Your task to perform on an android device: turn on wifi Image 0: 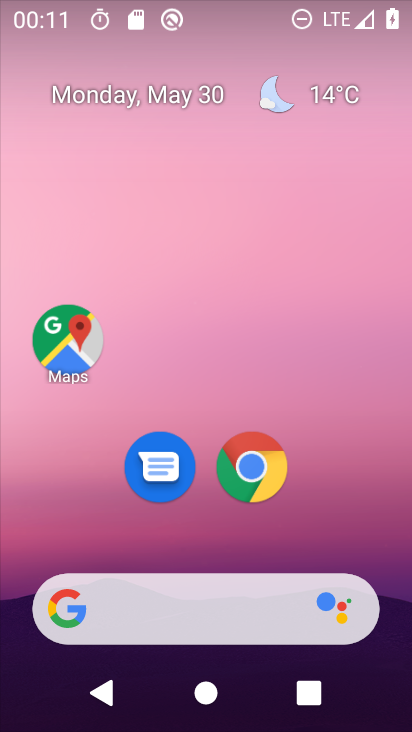
Step 0: drag from (189, 542) to (199, 205)
Your task to perform on an android device: turn on wifi Image 1: 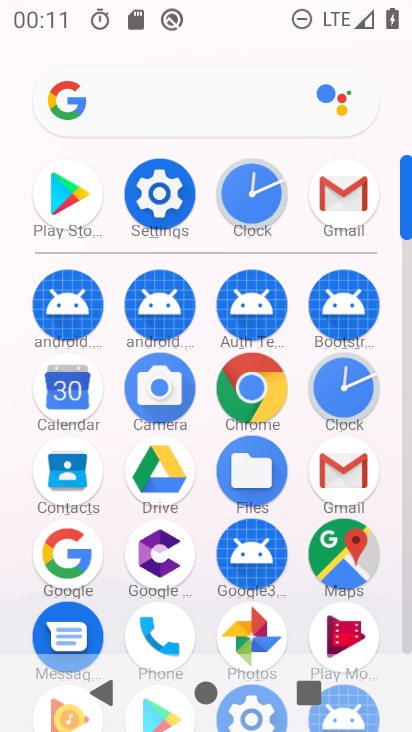
Step 1: click (168, 189)
Your task to perform on an android device: turn on wifi Image 2: 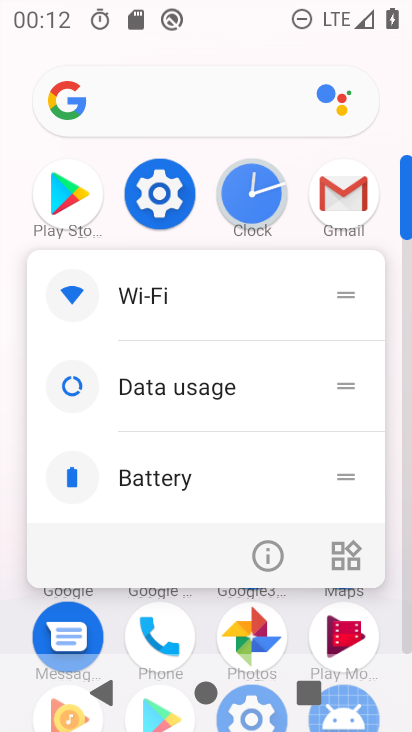
Step 2: click (173, 194)
Your task to perform on an android device: turn on wifi Image 3: 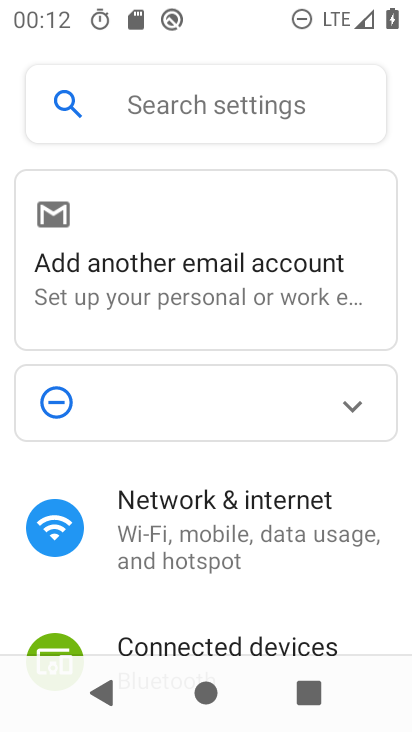
Step 3: click (168, 522)
Your task to perform on an android device: turn on wifi Image 4: 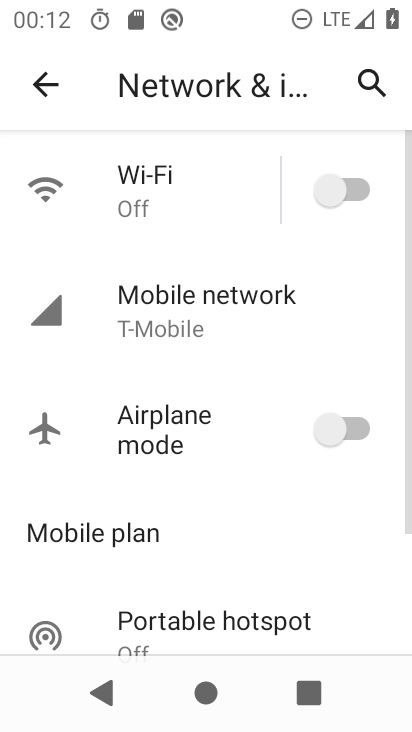
Step 4: click (357, 185)
Your task to perform on an android device: turn on wifi Image 5: 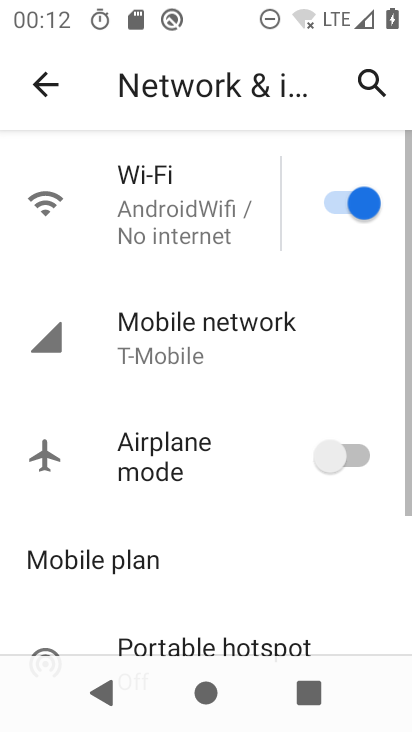
Step 5: task complete